Your task to perform on an android device: Go to wifi settings Image 0: 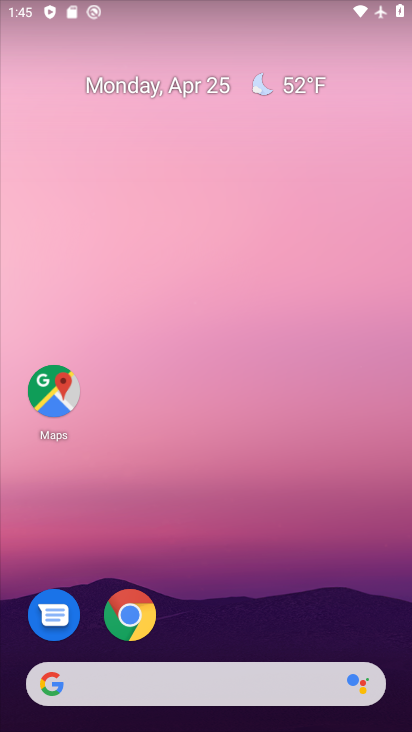
Step 0: drag from (230, 600) to (216, 66)
Your task to perform on an android device: Go to wifi settings Image 1: 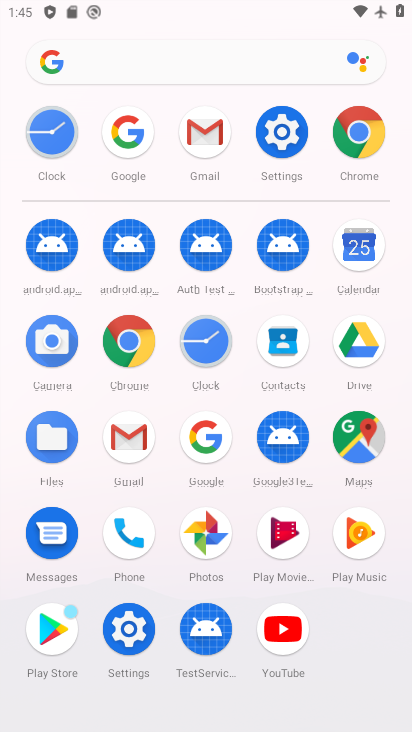
Step 1: click (280, 127)
Your task to perform on an android device: Go to wifi settings Image 2: 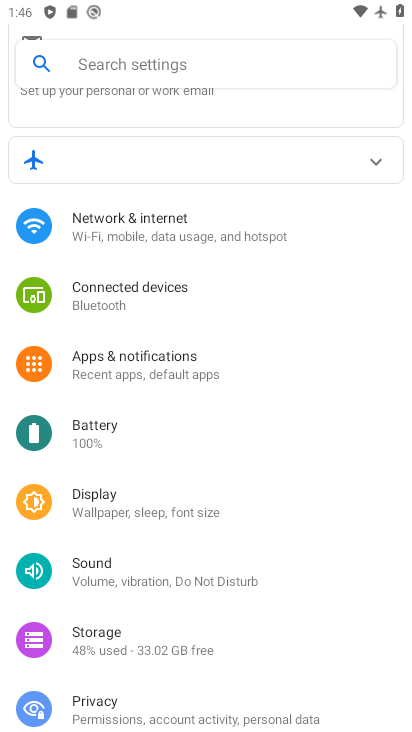
Step 2: click (186, 228)
Your task to perform on an android device: Go to wifi settings Image 3: 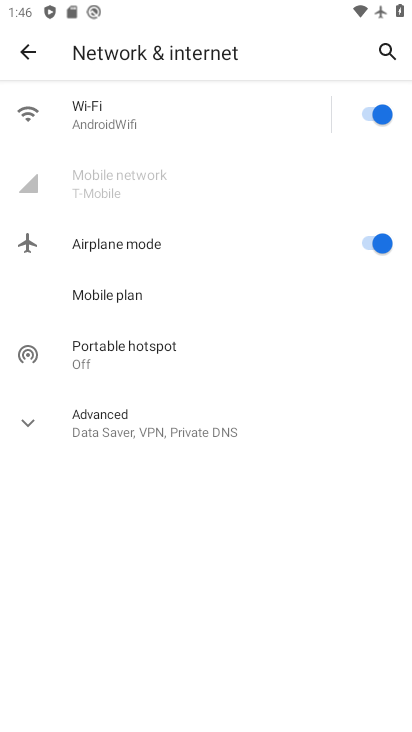
Step 3: click (110, 125)
Your task to perform on an android device: Go to wifi settings Image 4: 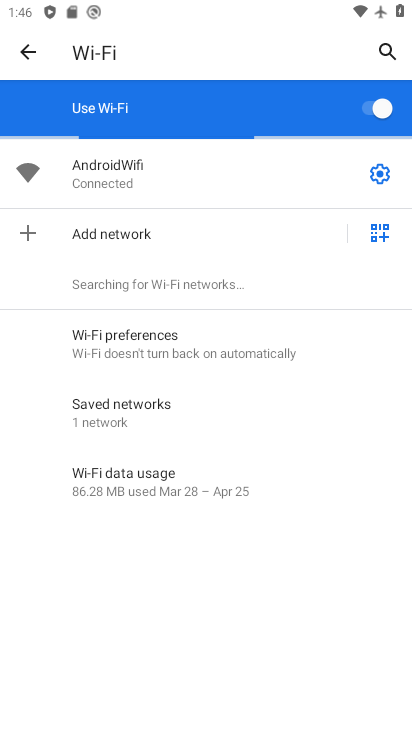
Step 4: click (379, 177)
Your task to perform on an android device: Go to wifi settings Image 5: 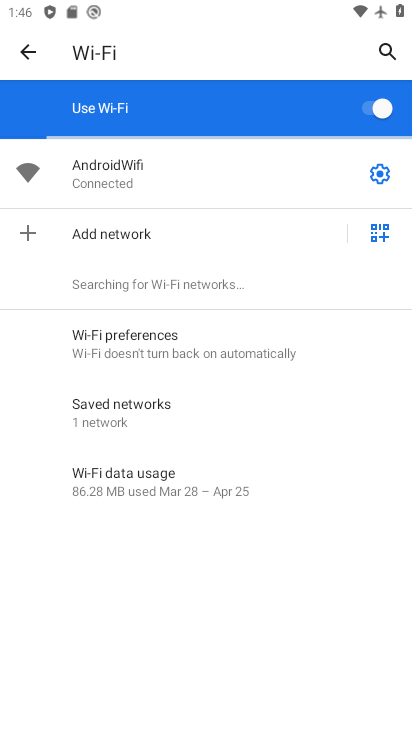
Step 5: click (381, 171)
Your task to perform on an android device: Go to wifi settings Image 6: 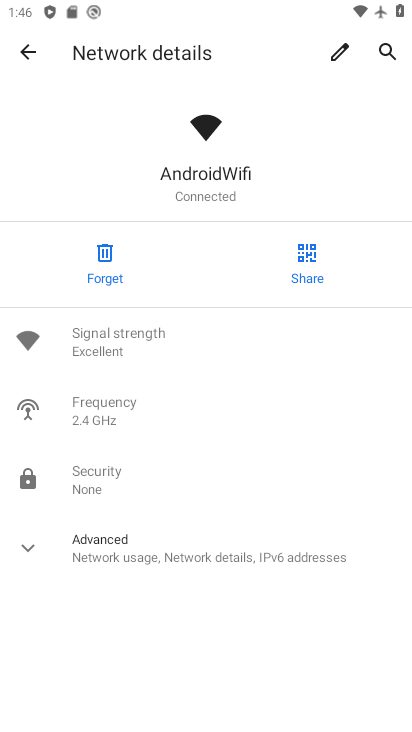
Step 6: task complete